Your task to perform on an android device: Open calendar and show me the first week of next month Image 0: 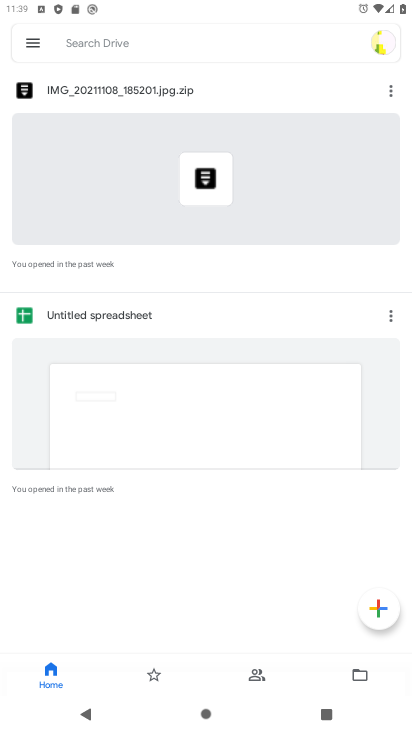
Step 0: press home button
Your task to perform on an android device: Open calendar and show me the first week of next month Image 1: 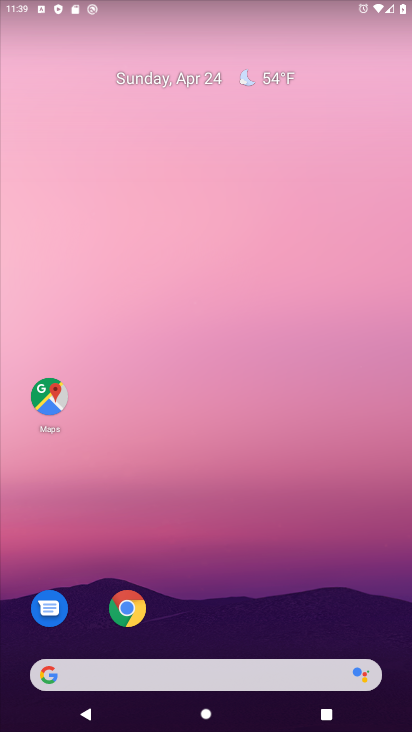
Step 1: drag from (382, 637) to (349, 44)
Your task to perform on an android device: Open calendar and show me the first week of next month Image 2: 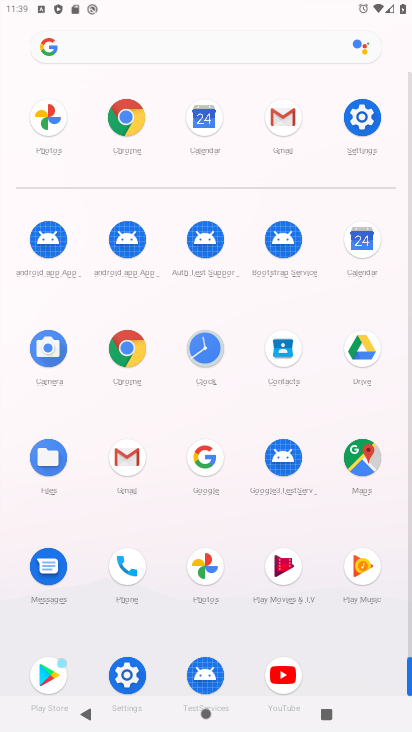
Step 2: click (361, 242)
Your task to perform on an android device: Open calendar and show me the first week of next month Image 3: 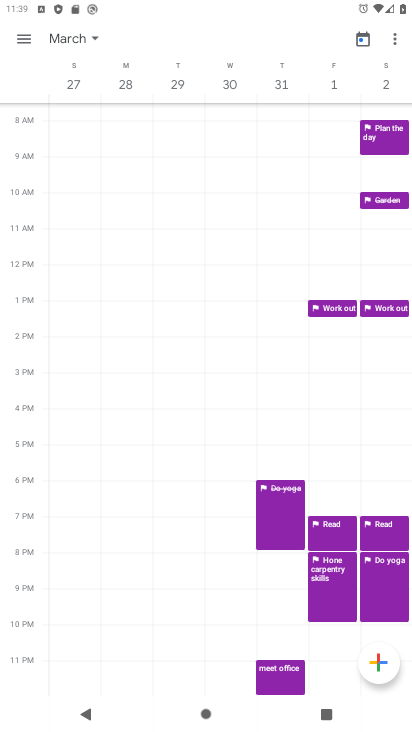
Step 3: click (96, 36)
Your task to perform on an android device: Open calendar and show me the first week of next month Image 4: 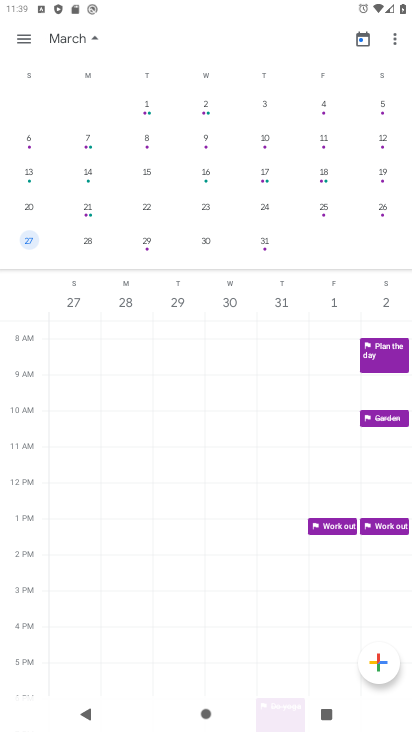
Step 4: task complete